Your task to perform on an android device: find snoozed emails in the gmail app Image 0: 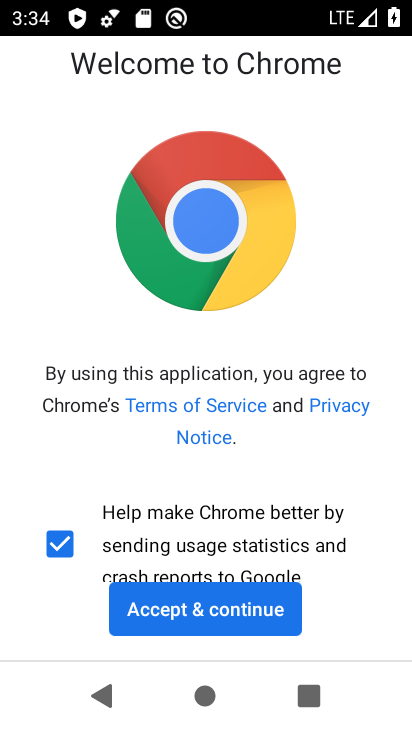
Step 0: press home button
Your task to perform on an android device: find snoozed emails in the gmail app Image 1: 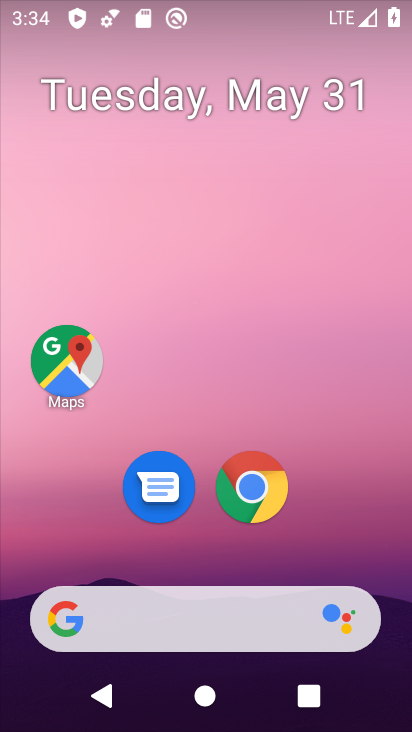
Step 1: click (383, 552)
Your task to perform on an android device: find snoozed emails in the gmail app Image 2: 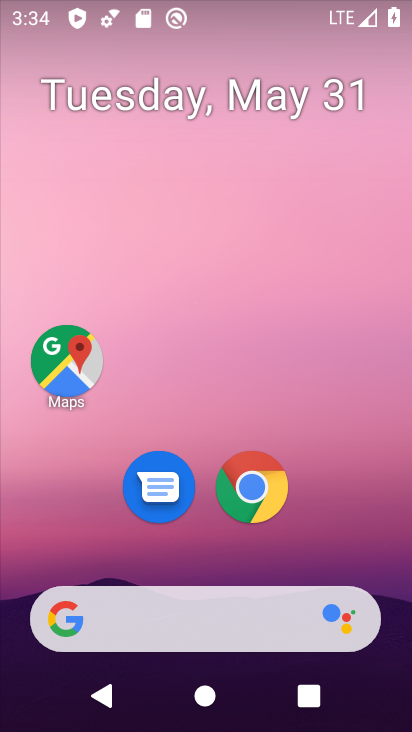
Step 2: drag from (383, 552) to (331, 57)
Your task to perform on an android device: find snoozed emails in the gmail app Image 3: 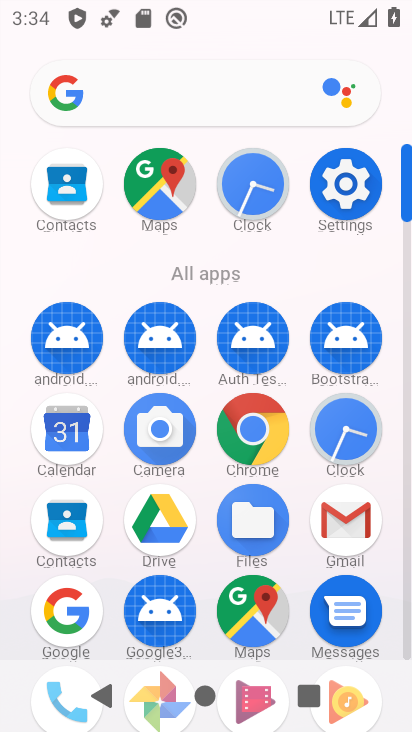
Step 3: click (367, 522)
Your task to perform on an android device: find snoozed emails in the gmail app Image 4: 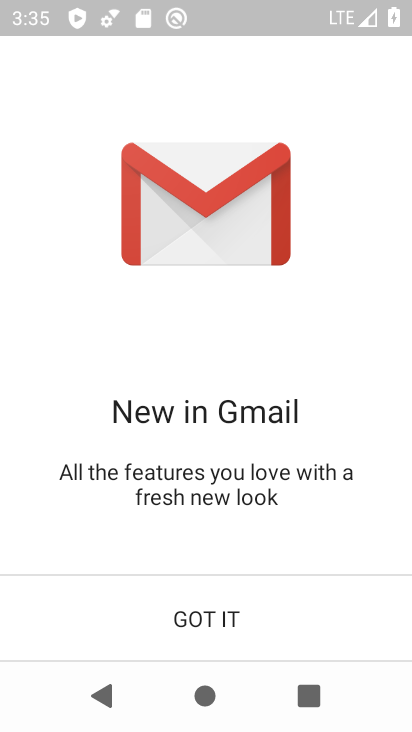
Step 4: click (201, 627)
Your task to perform on an android device: find snoozed emails in the gmail app Image 5: 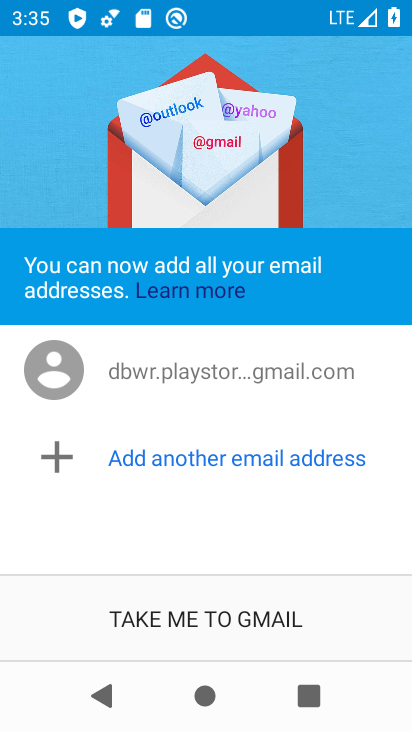
Step 5: click (217, 620)
Your task to perform on an android device: find snoozed emails in the gmail app Image 6: 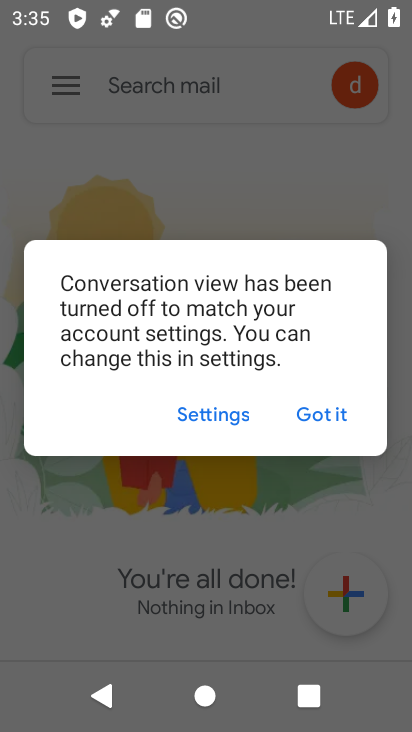
Step 6: click (323, 409)
Your task to perform on an android device: find snoozed emails in the gmail app Image 7: 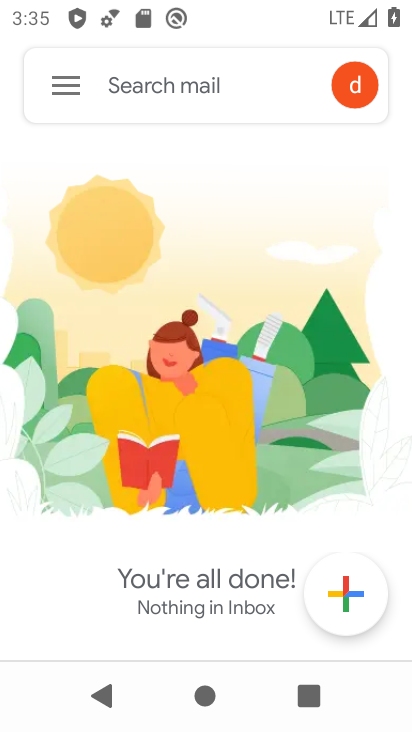
Step 7: click (64, 100)
Your task to perform on an android device: find snoozed emails in the gmail app Image 8: 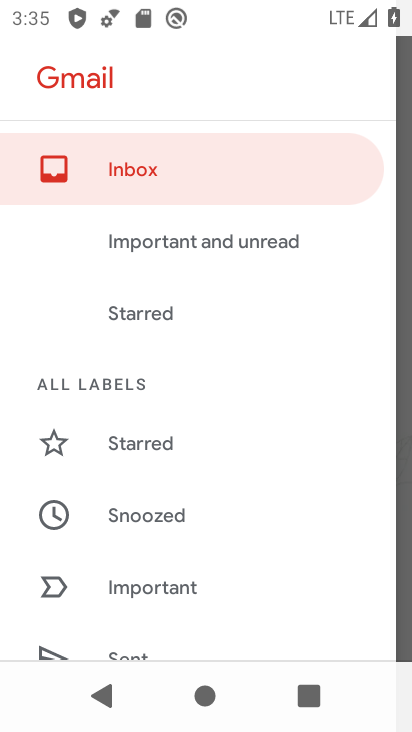
Step 8: click (164, 523)
Your task to perform on an android device: find snoozed emails in the gmail app Image 9: 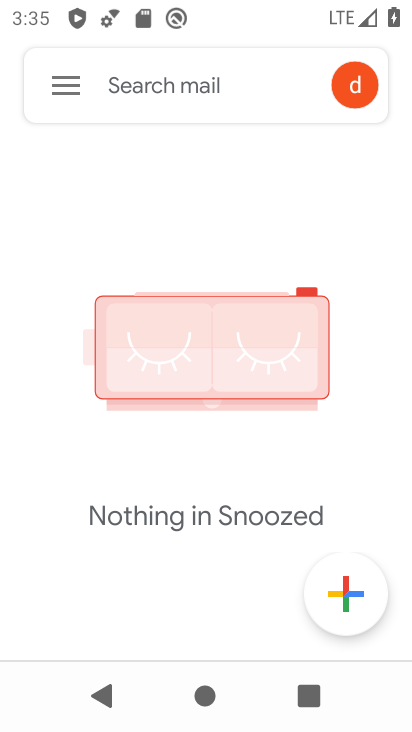
Step 9: task complete